Your task to perform on an android device: Open the calendar Image 0: 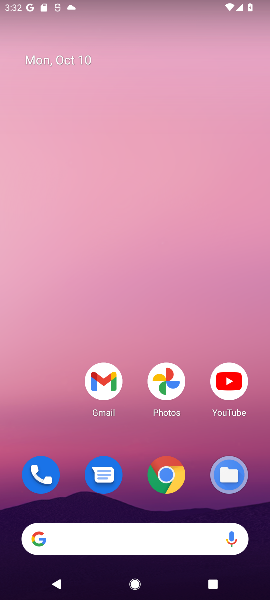
Step 0: drag from (124, 504) to (251, 102)
Your task to perform on an android device: Open the calendar Image 1: 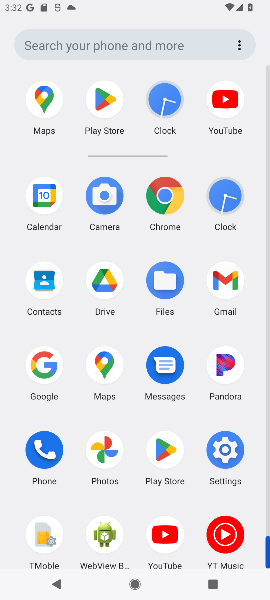
Step 1: click (54, 200)
Your task to perform on an android device: Open the calendar Image 2: 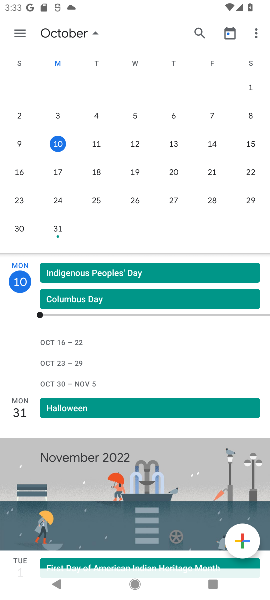
Step 2: task complete